Your task to perform on an android device: install app "Google Keep" Image 0: 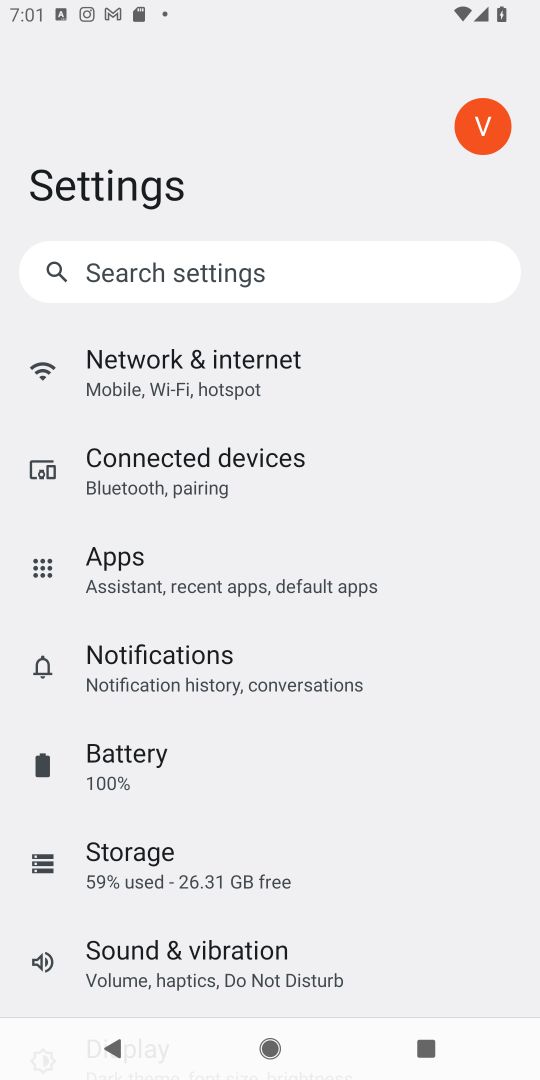
Step 0: press home button
Your task to perform on an android device: install app "Google Keep" Image 1: 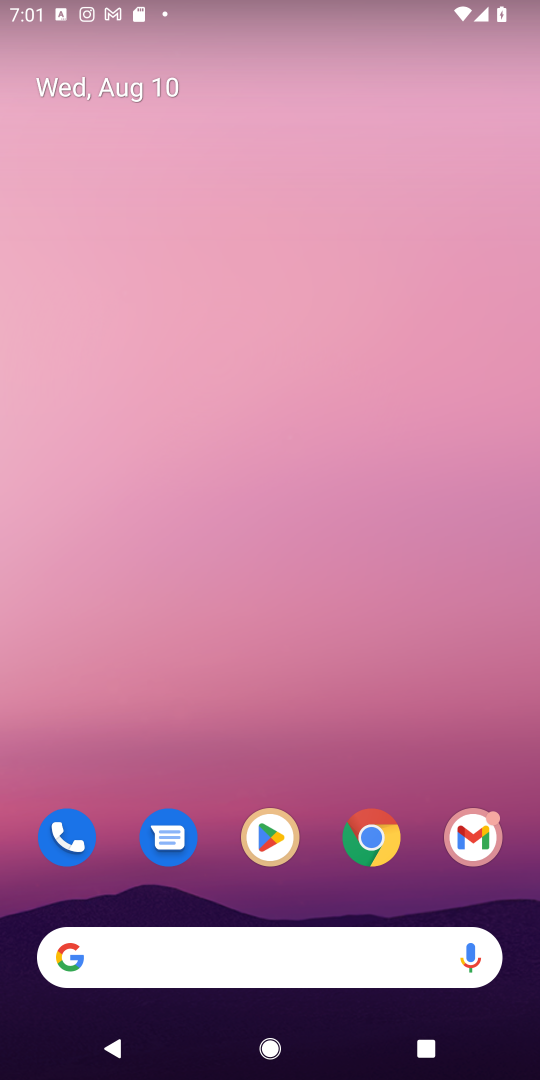
Step 1: click (261, 828)
Your task to perform on an android device: install app "Google Keep" Image 2: 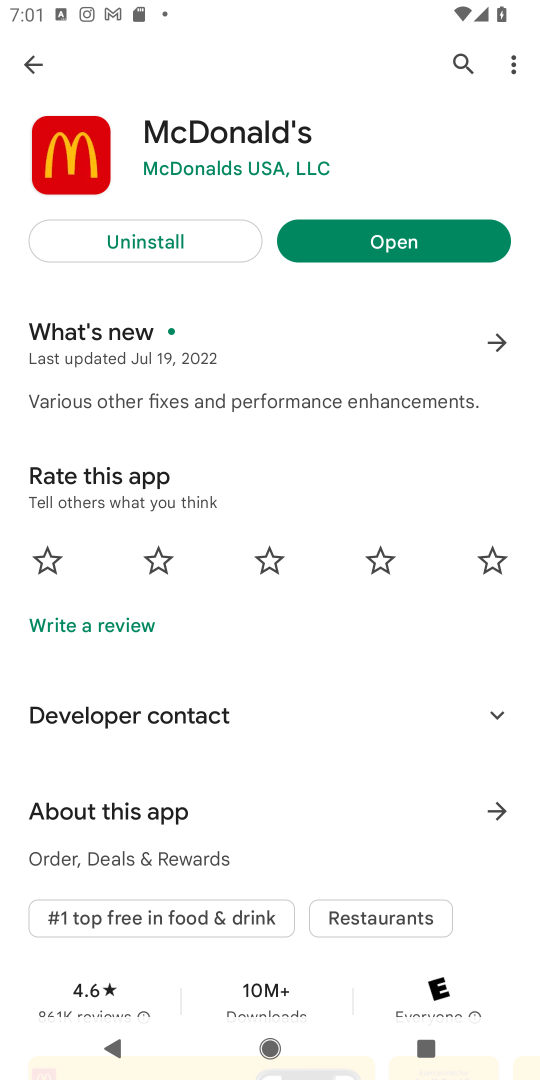
Step 2: click (455, 56)
Your task to perform on an android device: install app "Google Keep" Image 3: 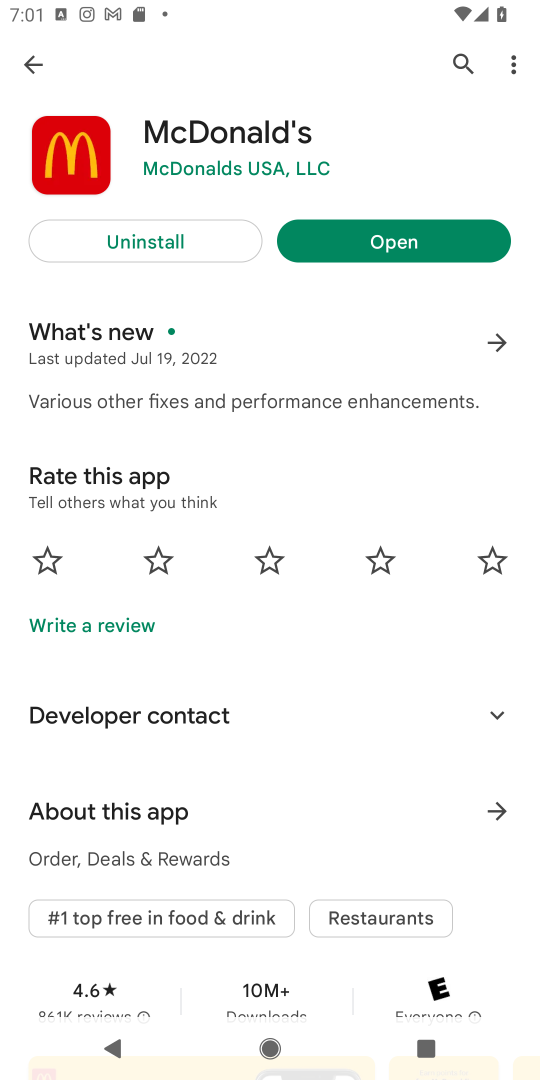
Step 3: click (454, 63)
Your task to perform on an android device: install app "Google Keep" Image 4: 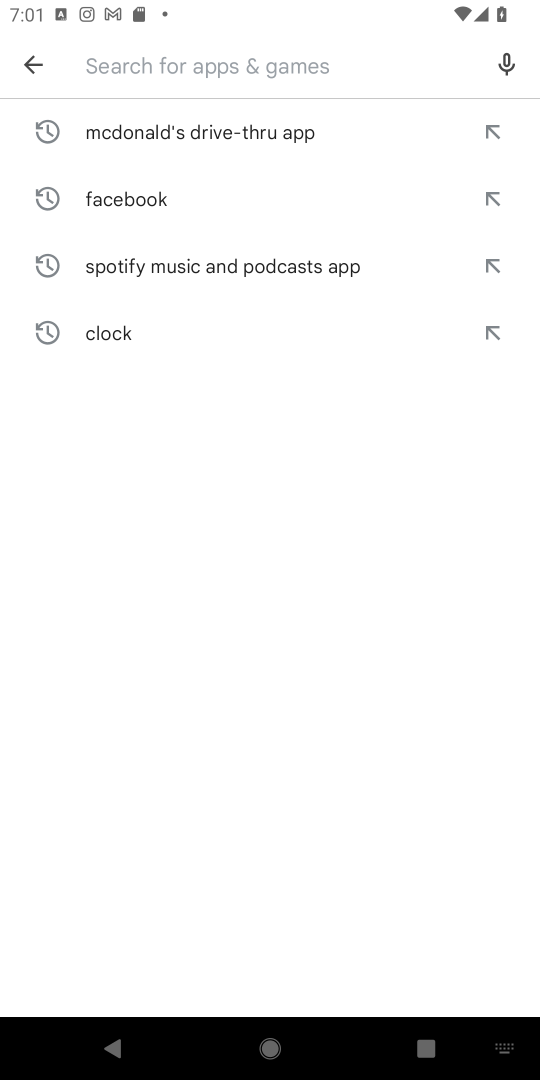
Step 4: type "Google Keep"
Your task to perform on an android device: install app "Google Keep" Image 5: 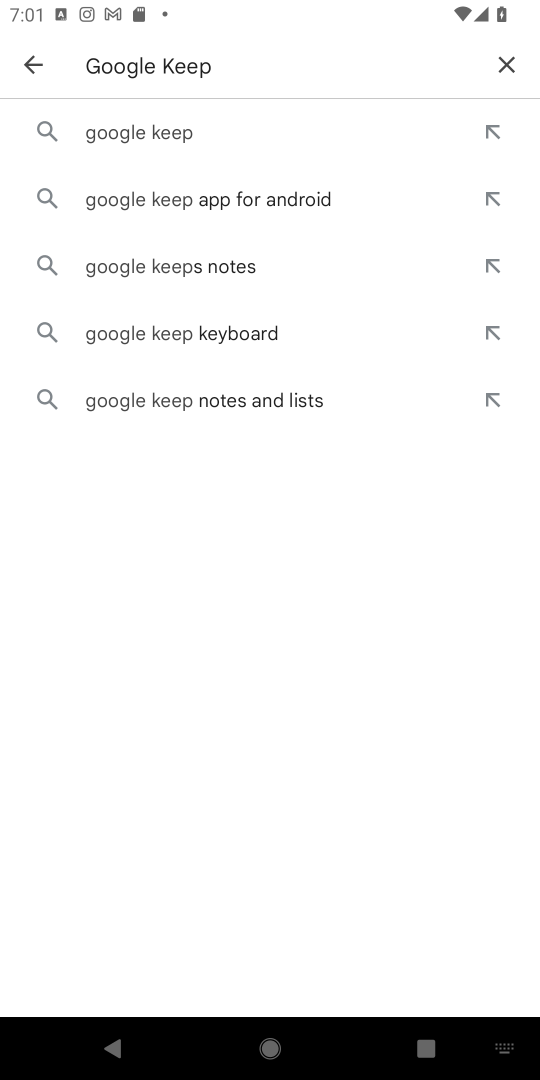
Step 5: click (96, 124)
Your task to perform on an android device: install app "Google Keep" Image 6: 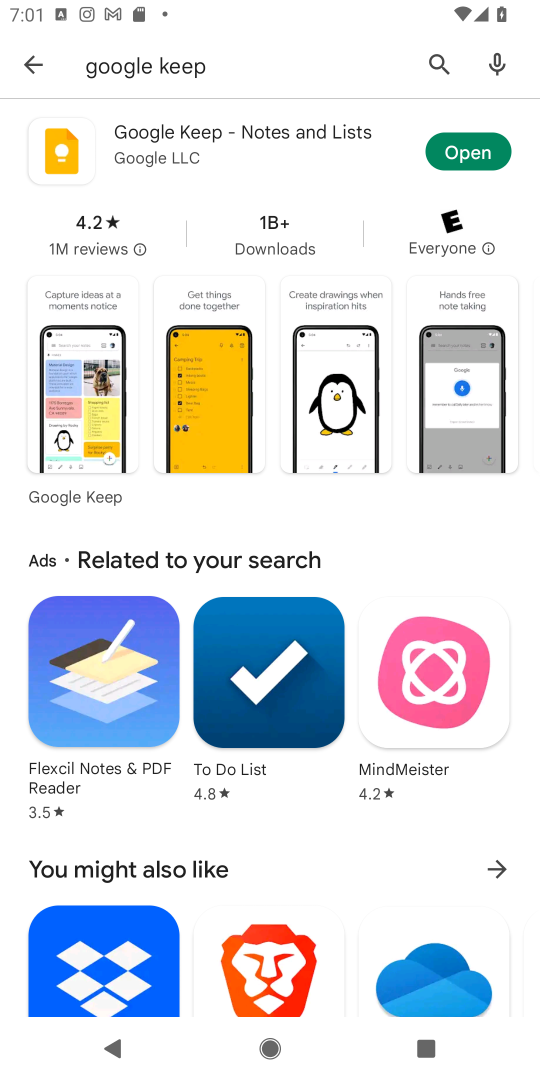
Step 6: task complete